Your task to perform on an android device: Open Youtube and go to "Your channel" Image 0: 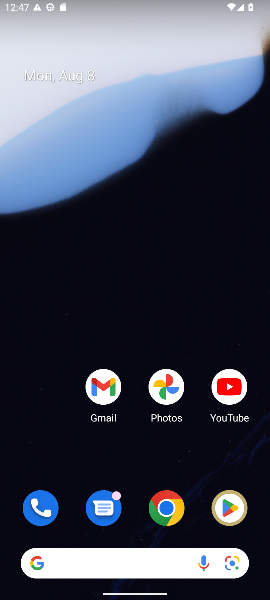
Step 0: click (223, 390)
Your task to perform on an android device: Open Youtube and go to "Your channel" Image 1: 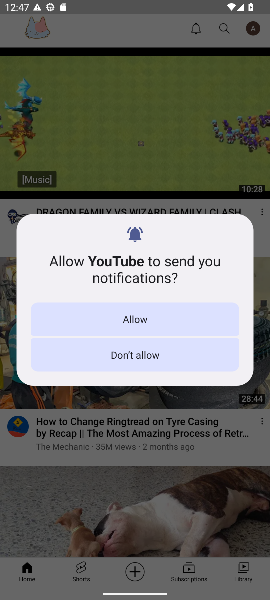
Step 1: click (107, 321)
Your task to perform on an android device: Open Youtube and go to "Your channel" Image 2: 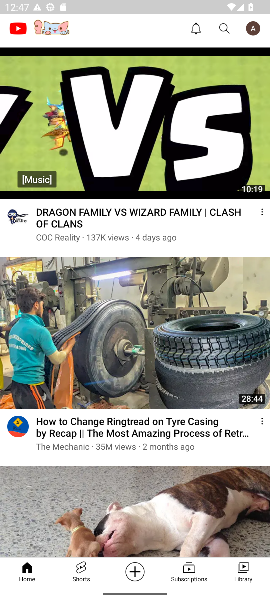
Step 2: click (238, 574)
Your task to perform on an android device: Open Youtube and go to "Your channel" Image 3: 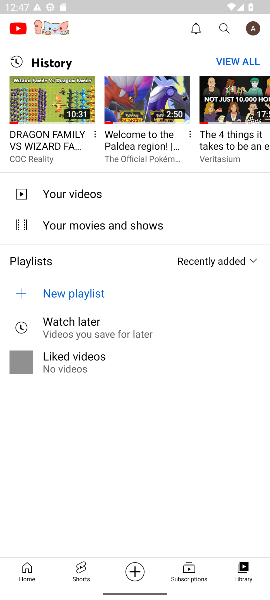
Step 3: click (252, 28)
Your task to perform on an android device: Open Youtube and go to "Your channel" Image 4: 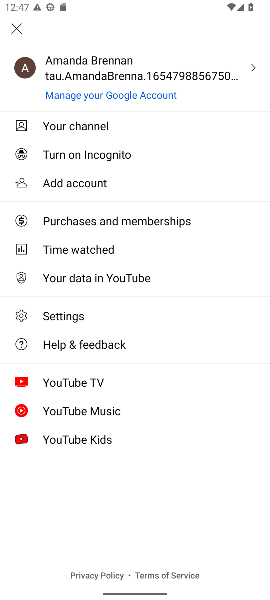
Step 4: click (103, 125)
Your task to perform on an android device: Open Youtube and go to "Your channel" Image 5: 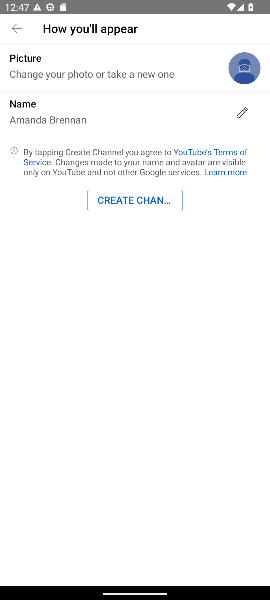
Step 5: task complete